Your task to perform on an android device: Go to Yahoo.com Image 0: 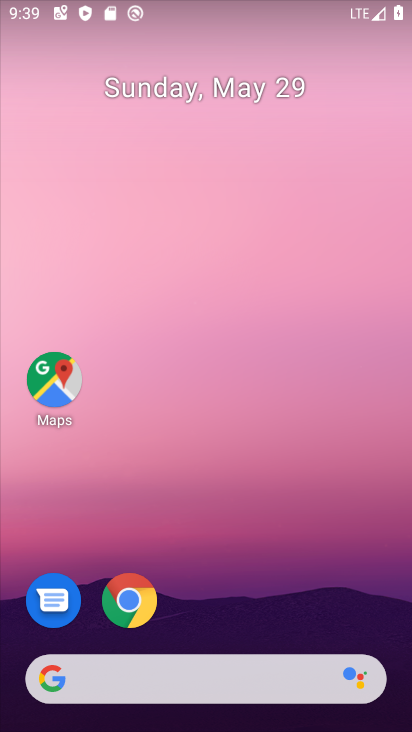
Step 0: click (113, 603)
Your task to perform on an android device: Go to Yahoo.com Image 1: 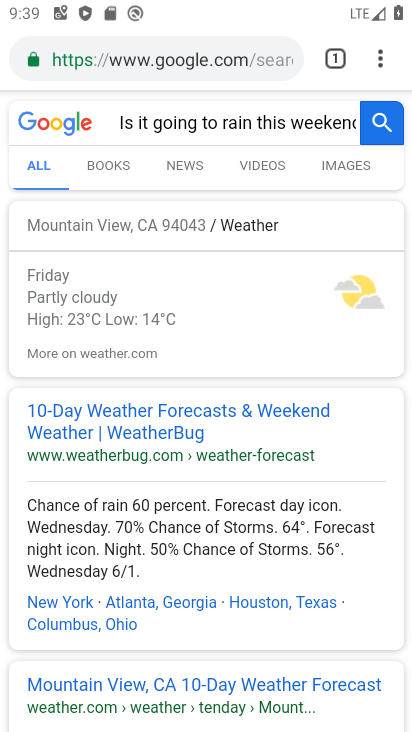
Step 1: click (163, 65)
Your task to perform on an android device: Go to Yahoo.com Image 2: 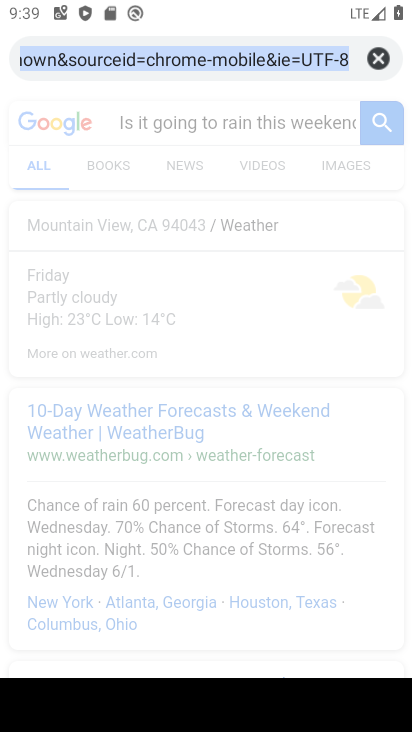
Step 2: click (372, 62)
Your task to perform on an android device: Go to Yahoo.com Image 3: 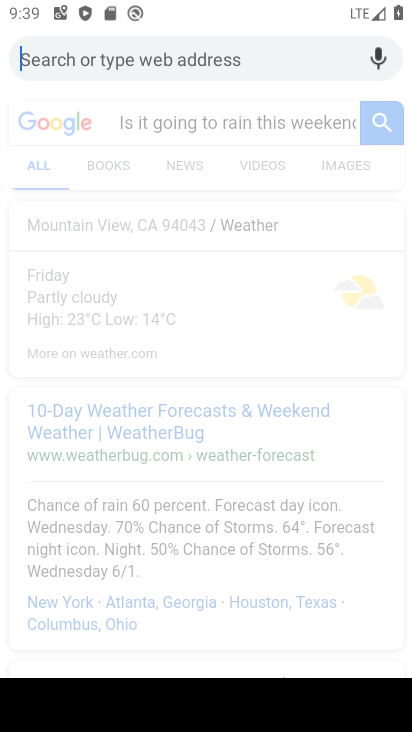
Step 3: type " Yahoo.com"
Your task to perform on an android device: Go to Yahoo.com Image 4: 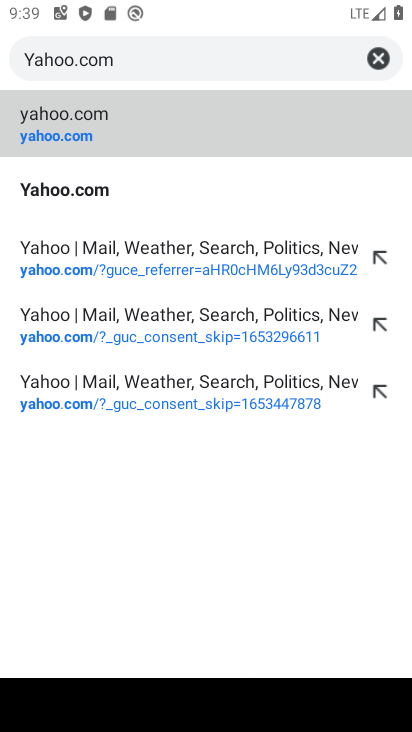
Step 4: click (71, 127)
Your task to perform on an android device: Go to Yahoo.com Image 5: 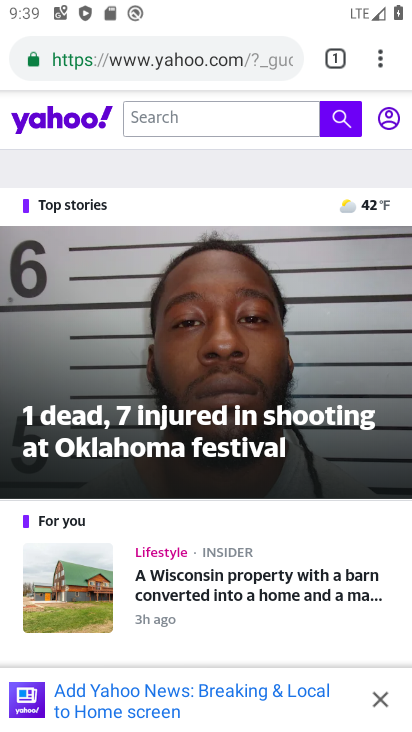
Step 5: task complete